Your task to perform on an android device: Open Chrome and go to settings Image 0: 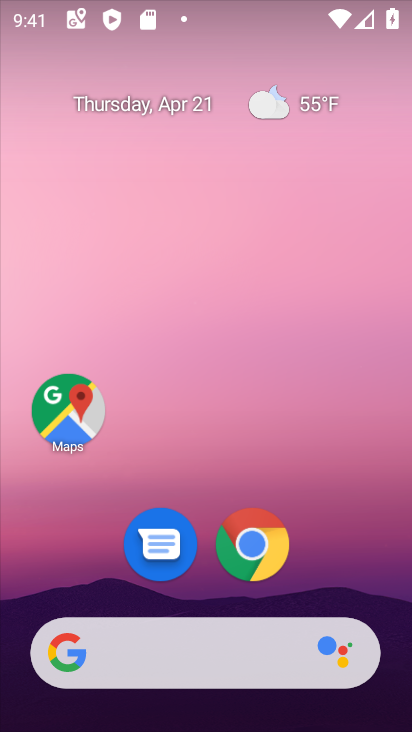
Step 0: drag from (351, 561) to (269, 6)
Your task to perform on an android device: Open Chrome and go to settings Image 1: 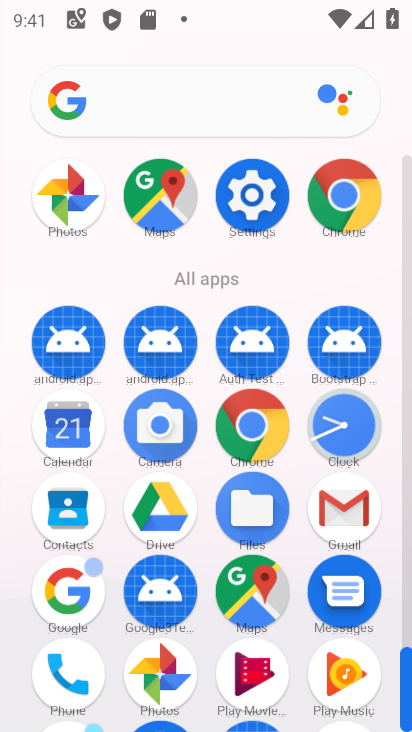
Step 1: click (255, 418)
Your task to perform on an android device: Open Chrome and go to settings Image 2: 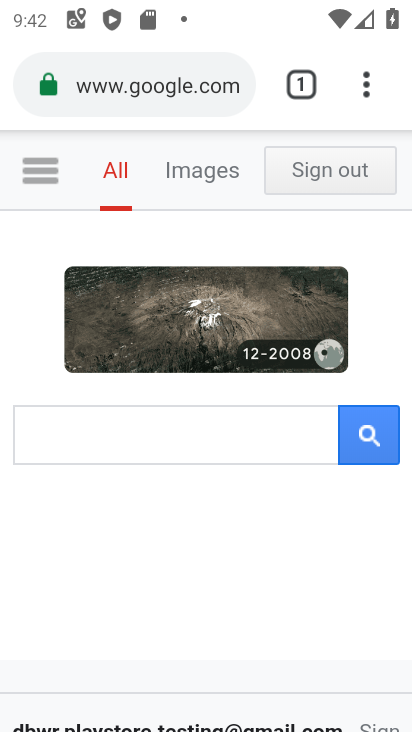
Step 2: drag from (369, 81) to (150, 562)
Your task to perform on an android device: Open Chrome and go to settings Image 3: 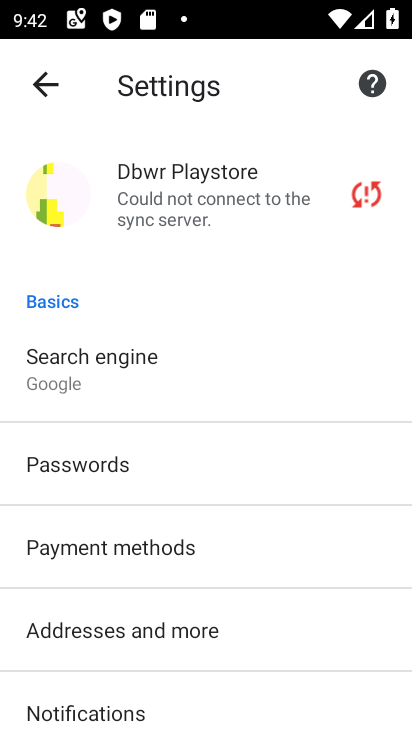
Step 3: drag from (201, 571) to (211, 226)
Your task to perform on an android device: Open Chrome and go to settings Image 4: 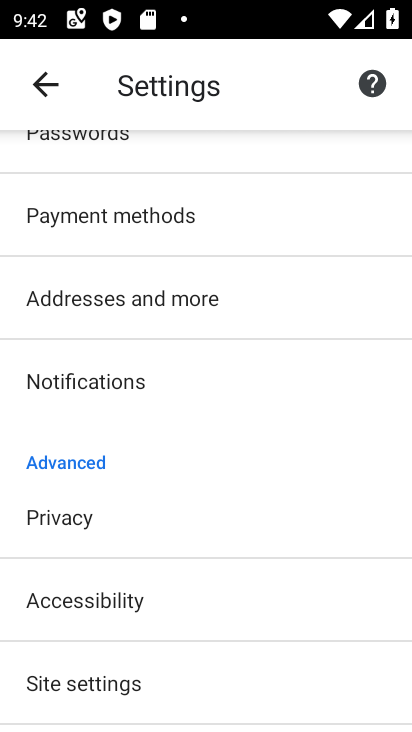
Step 4: drag from (240, 672) to (239, 185)
Your task to perform on an android device: Open Chrome and go to settings Image 5: 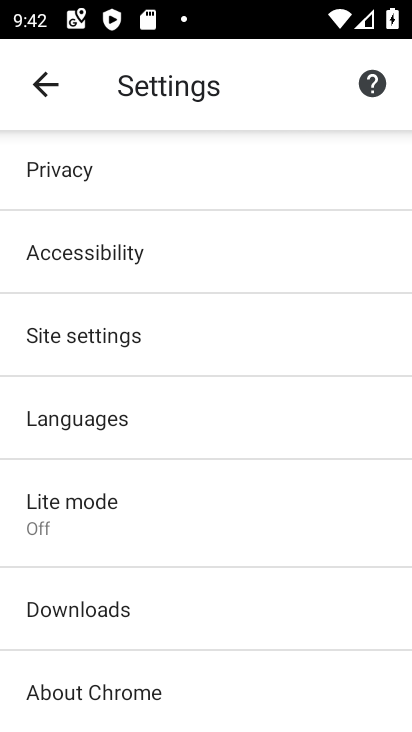
Step 5: click (140, 335)
Your task to perform on an android device: Open Chrome and go to settings Image 6: 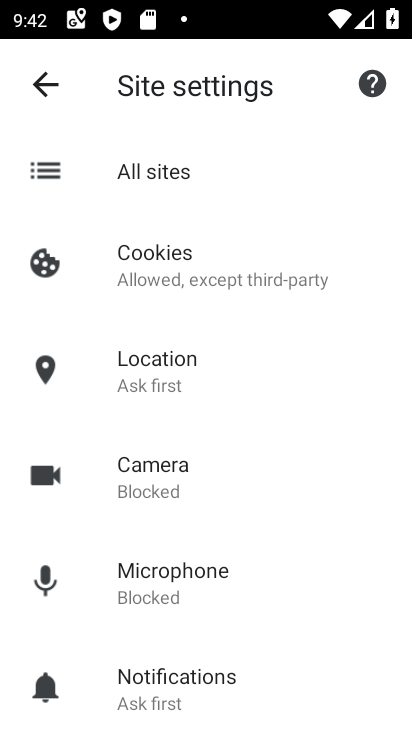
Step 6: click (47, 83)
Your task to perform on an android device: Open Chrome and go to settings Image 7: 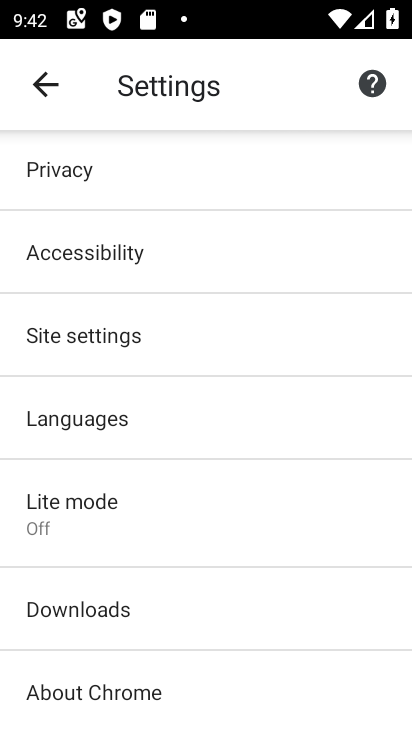
Step 7: task complete